Your task to perform on an android device: see tabs open on other devices in the chrome app Image 0: 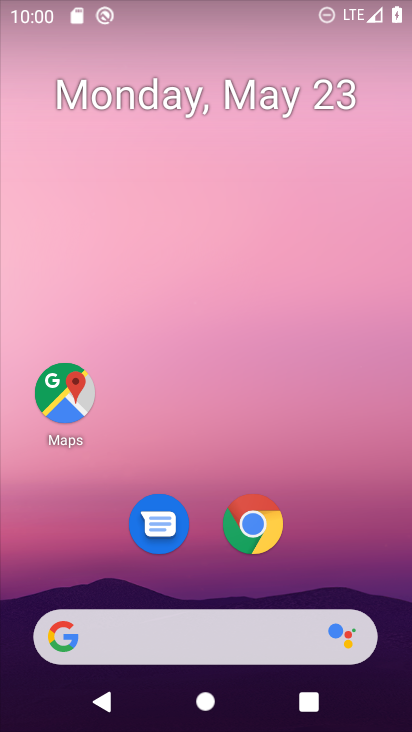
Step 0: click (258, 528)
Your task to perform on an android device: see tabs open on other devices in the chrome app Image 1: 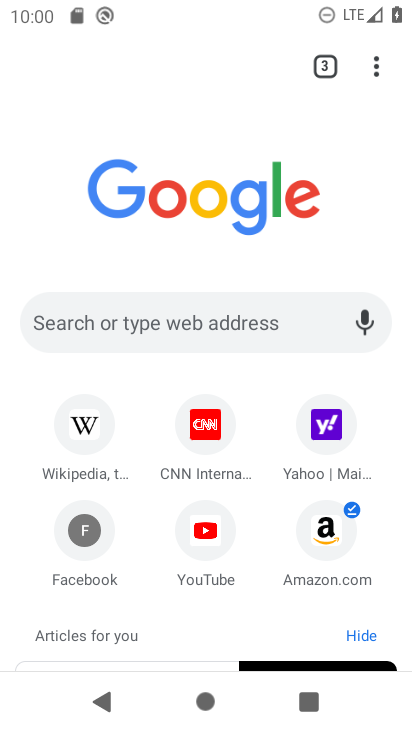
Step 1: click (374, 67)
Your task to perform on an android device: see tabs open on other devices in the chrome app Image 2: 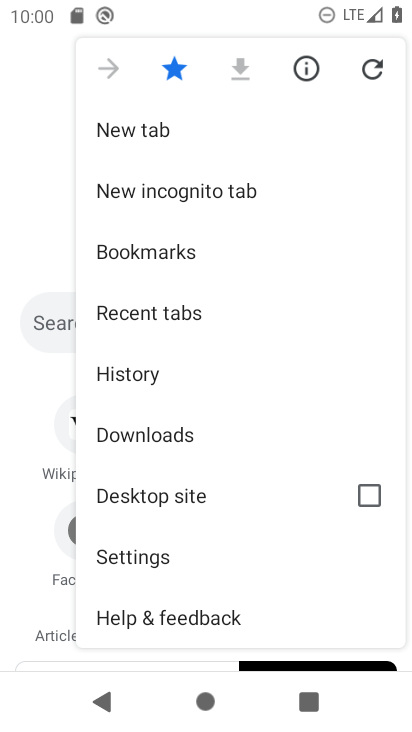
Step 2: click (165, 312)
Your task to perform on an android device: see tabs open on other devices in the chrome app Image 3: 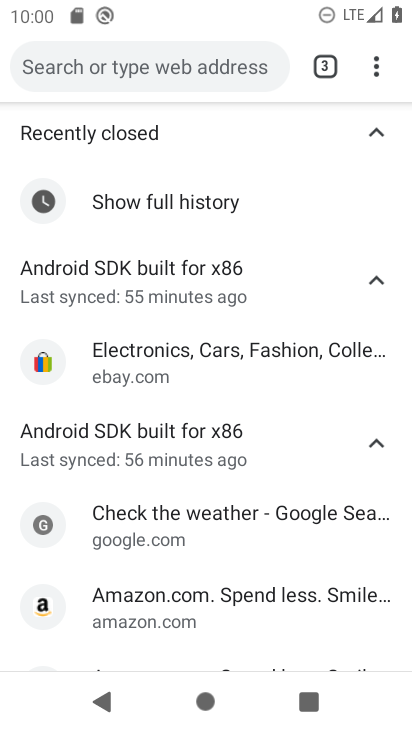
Step 3: task complete